Your task to perform on an android device: Open maps Image 0: 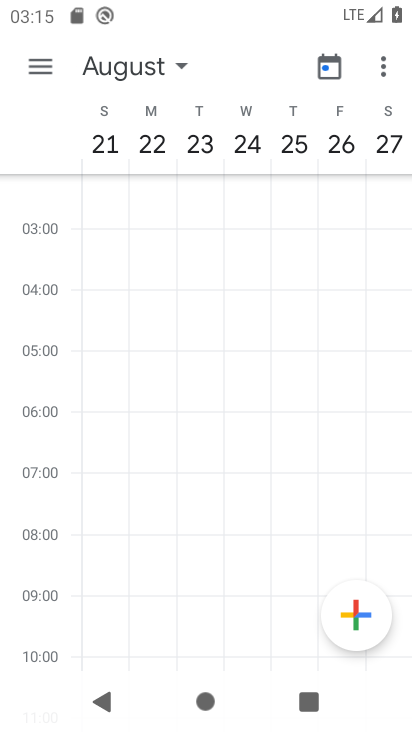
Step 0: press home button
Your task to perform on an android device: Open maps Image 1: 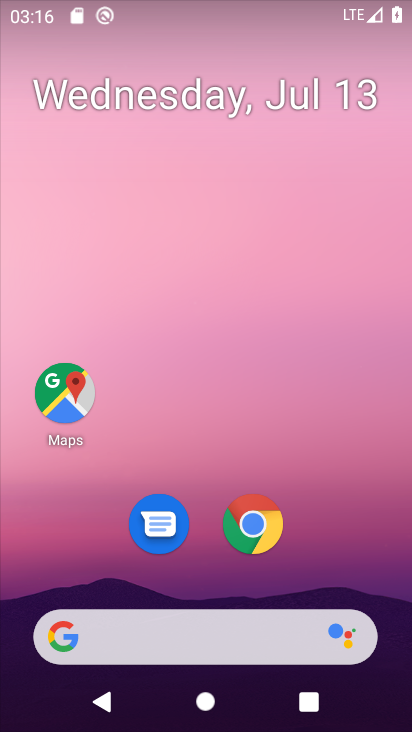
Step 1: click (64, 390)
Your task to perform on an android device: Open maps Image 2: 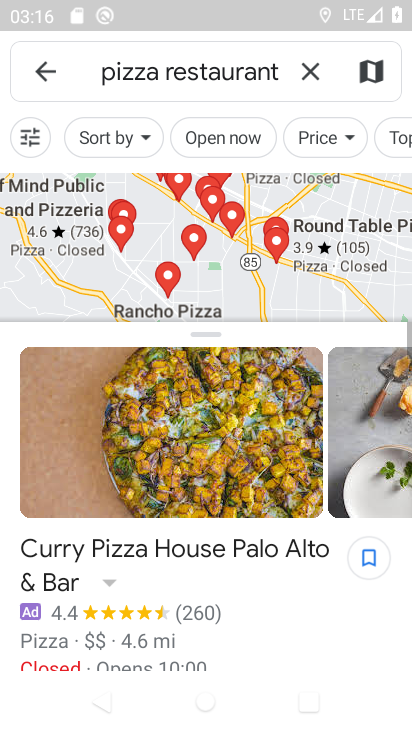
Step 2: click (302, 62)
Your task to perform on an android device: Open maps Image 3: 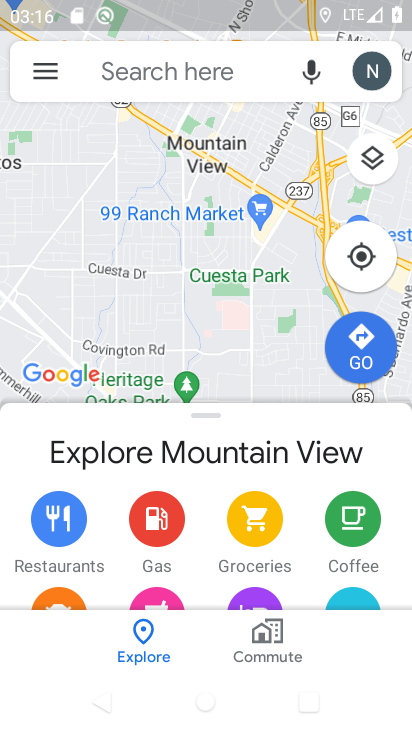
Step 3: task complete